Your task to perform on an android device: Open Google Maps and go to "Timeline" Image 0: 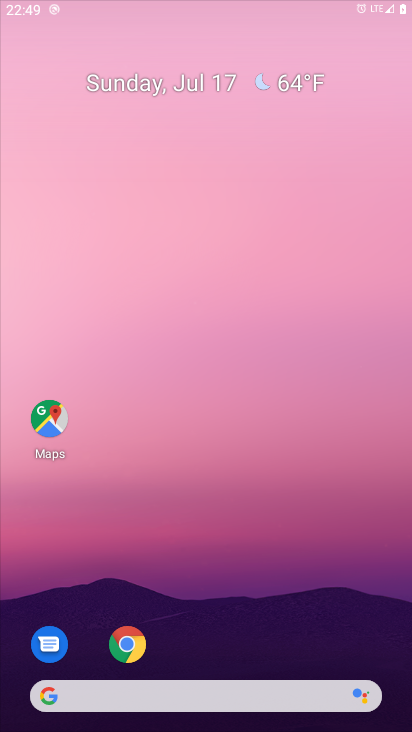
Step 0: press home button
Your task to perform on an android device: Open Google Maps and go to "Timeline" Image 1: 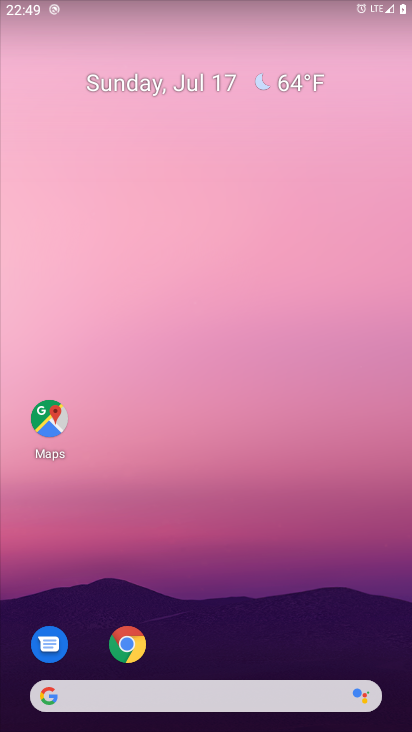
Step 1: drag from (296, 642) to (210, 75)
Your task to perform on an android device: Open Google Maps and go to "Timeline" Image 2: 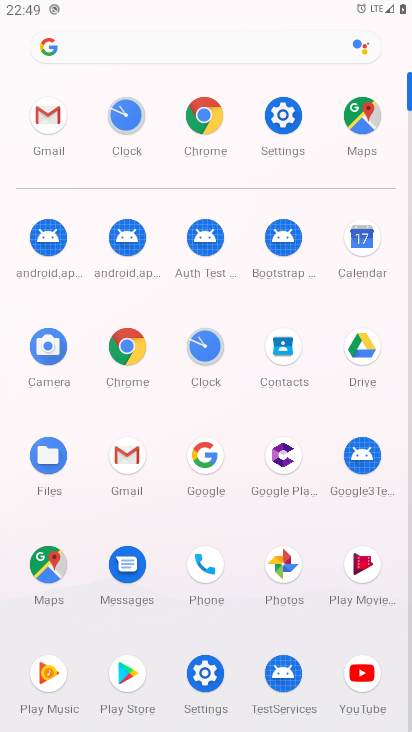
Step 2: click (351, 125)
Your task to perform on an android device: Open Google Maps and go to "Timeline" Image 3: 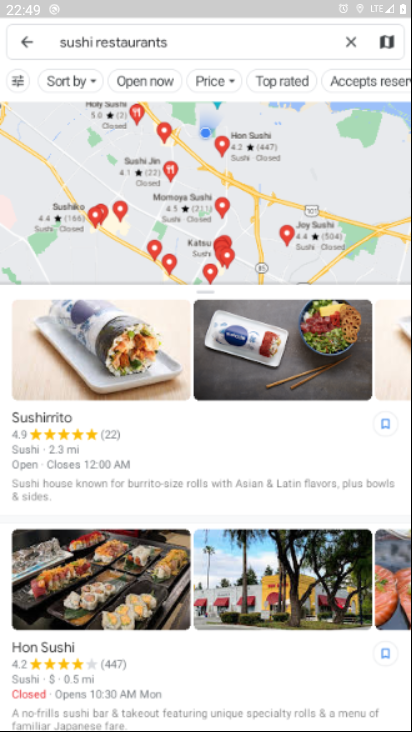
Step 3: click (19, 43)
Your task to perform on an android device: Open Google Maps and go to "Timeline" Image 4: 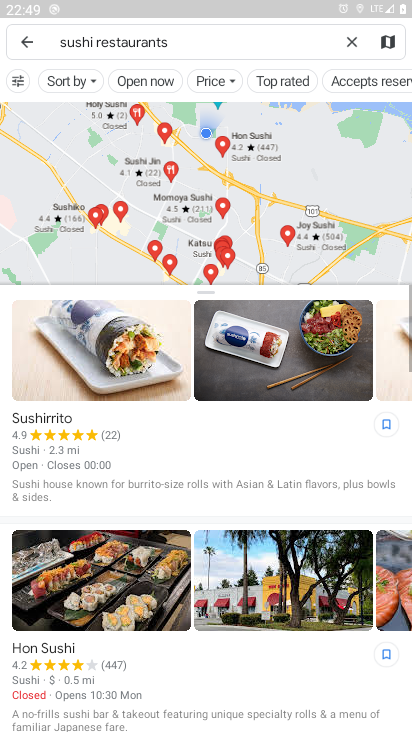
Step 4: click (20, 41)
Your task to perform on an android device: Open Google Maps and go to "Timeline" Image 5: 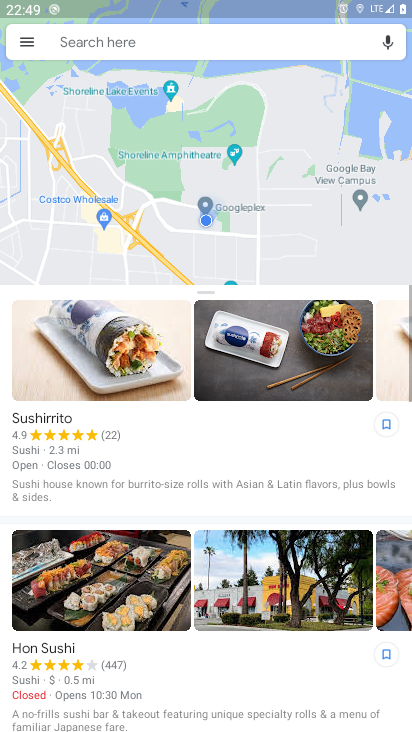
Step 5: click (30, 40)
Your task to perform on an android device: Open Google Maps and go to "Timeline" Image 6: 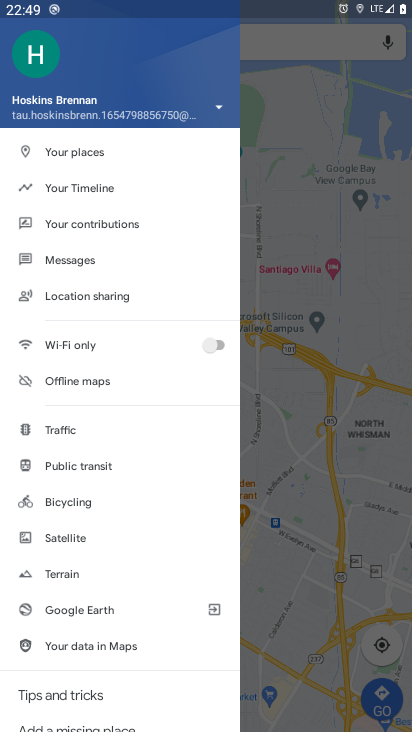
Step 6: click (101, 189)
Your task to perform on an android device: Open Google Maps and go to "Timeline" Image 7: 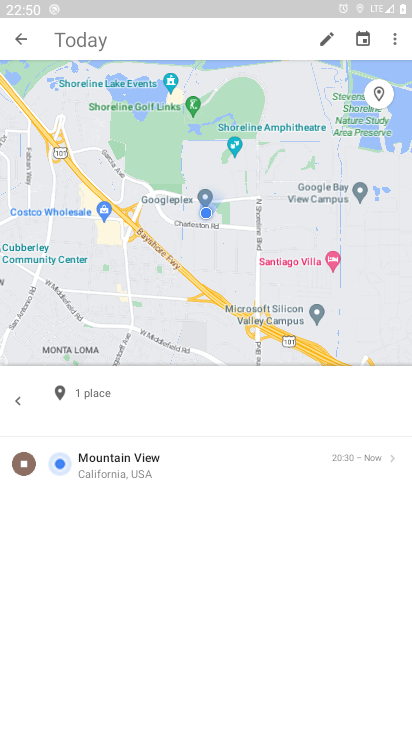
Step 7: task complete